Your task to perform on an android device: delete the emails in spam in the gmail app Image 0: 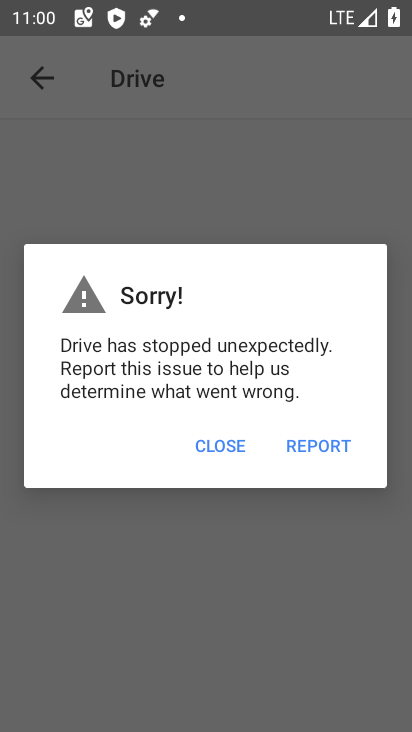
Step 0: press back button
Your task to perform on an android device: delete the emails in spam in the gmail app Image 1: 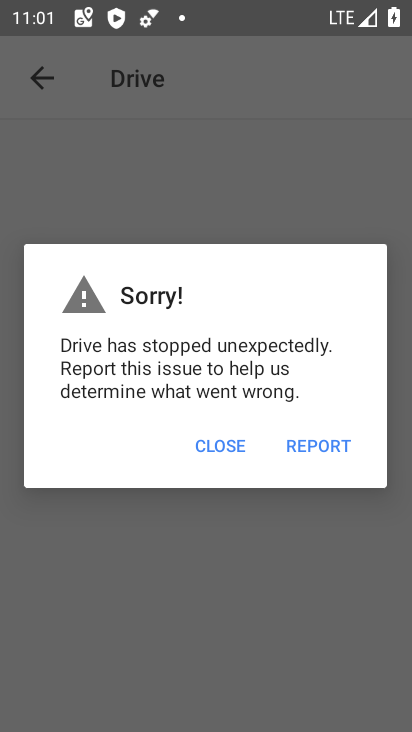
Step 1: press home button
Your task to perform on an android device: delete the emails in spam in the gmail app Image 2: 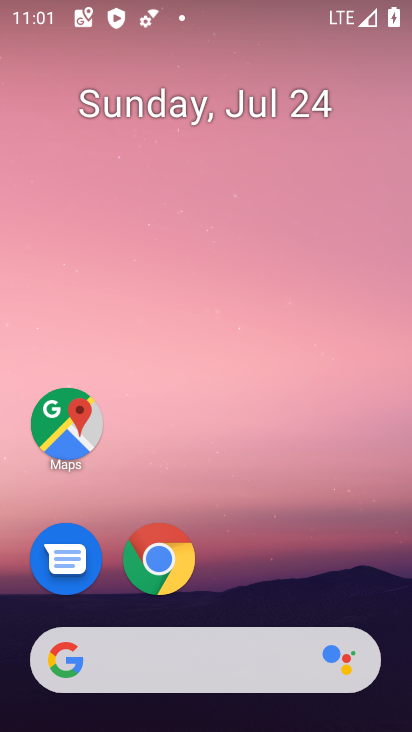
Step 2: drag from (247, 572) to (326, 32)
Your task to perform on an android device: delete the emails in spam in the gmail app Image 3: 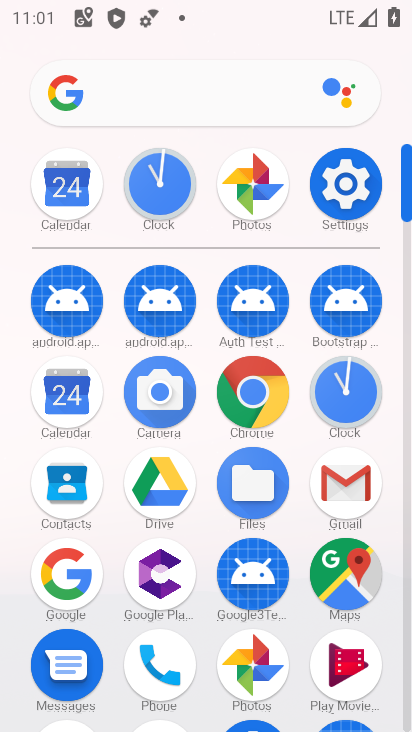
Step 3: click (342, 486)
Your task to perform on an android device: delete the emails in spam in the gmail app Image 4: 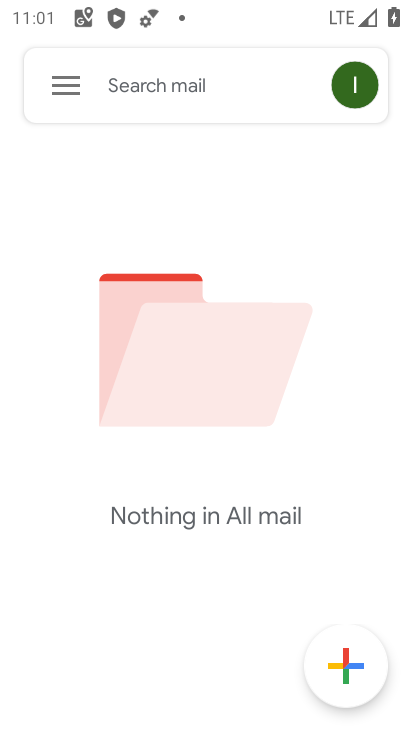
Step 4: click (69, 96)
Your task to perform on an android device: delete the emails in spam in the gmail app Image 5: 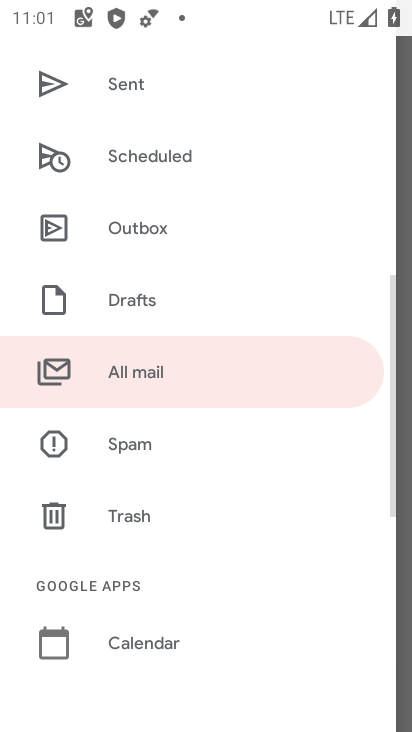
Step 5: click (118, 433)
Your task to perform on an android device: delete the emails in spam in the gmail app Image 6: 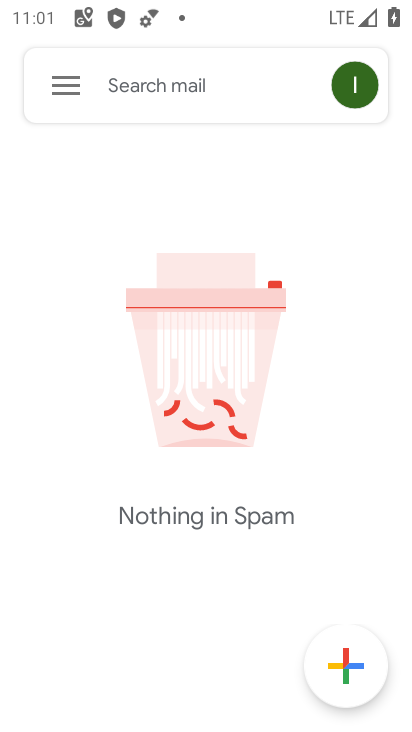
Step 6: task complete